Your task to perform on an android device: open the mobile data screen to see how much data has been used Image 0: 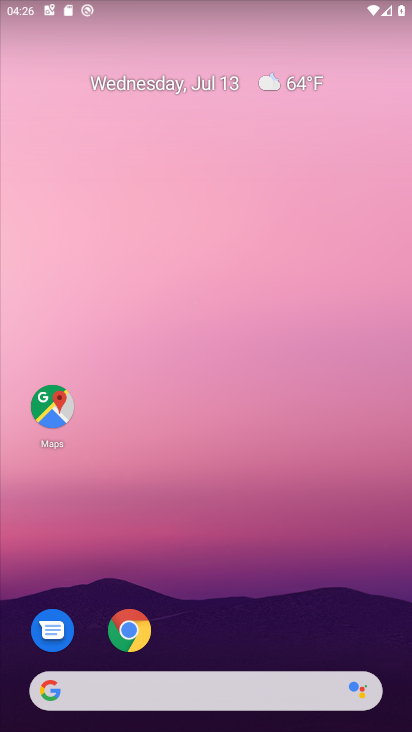
Step 0: drag from (221, 54) to (263, 643)
Your task to perform on an android device: open the mobile data screen to see how much data has been used Image 1: 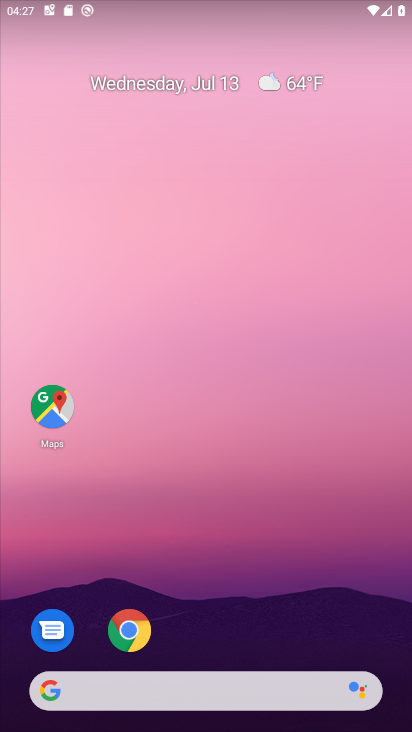
Step 1: drag from (196, 10) to (271, 577)
Your task to perform on an android device: open the mobile data screen to see how much data has been used Image 2: 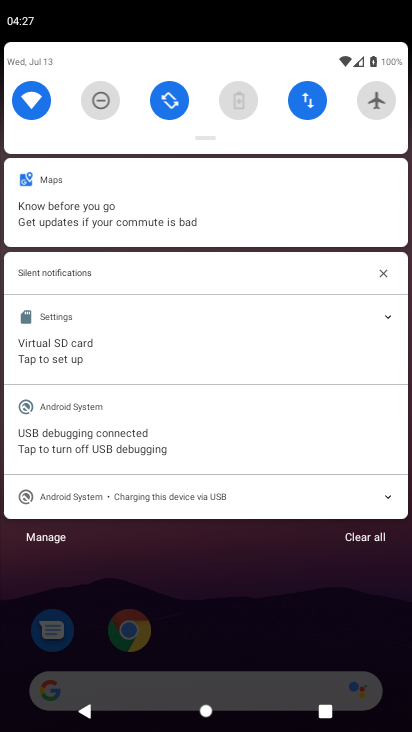
Step 2: click (307, 99)
Your task to perform on an android device: open the mobile data screen to see how much data has been used Image 3: 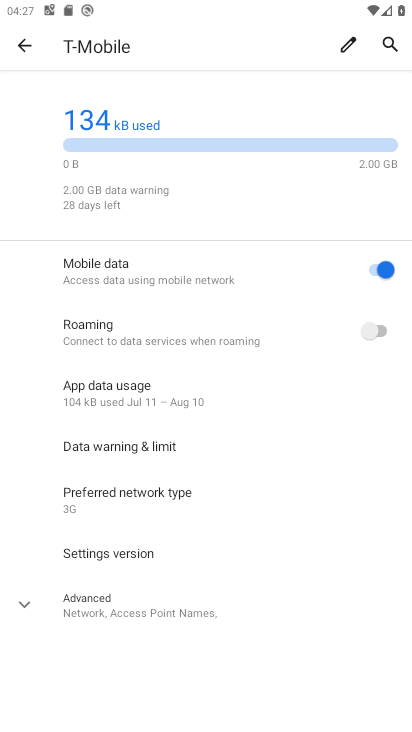
Step 3: task complete